Your task to perform on an android device: Open the phone app and click the voicemail tab. Image 0: 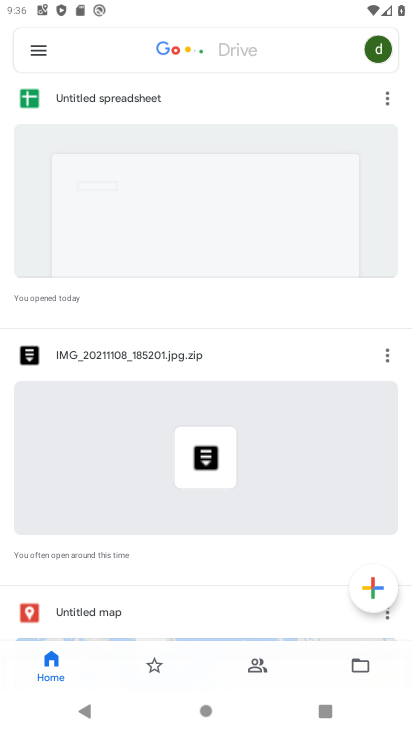
Step 0: press home button
Your task to perform on an android device: Open the phone app and click the voicemail tab. Image 1: 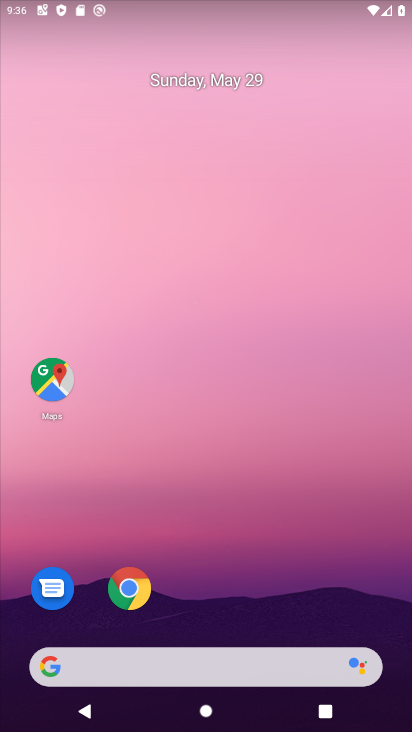
Step 1: drag from (14, 562) to (284, 153)
Your task to perform on an android device: Open the phone app and click the voicemail tab. Image 2: 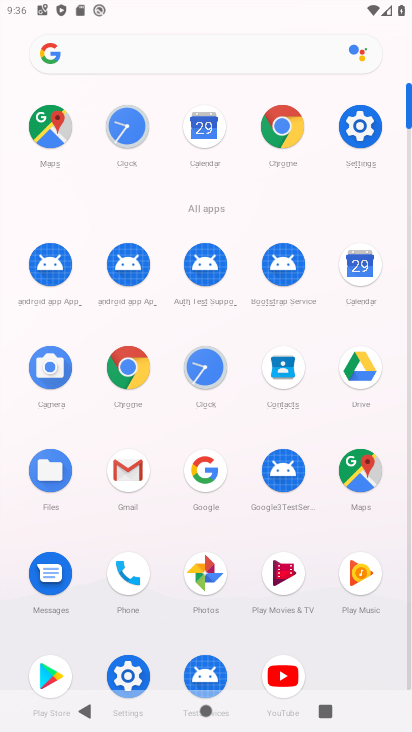
Step 2: click (121, 560)
Your task to perform on an android device: Open the phone app and click the voicemail tab. Image 3: 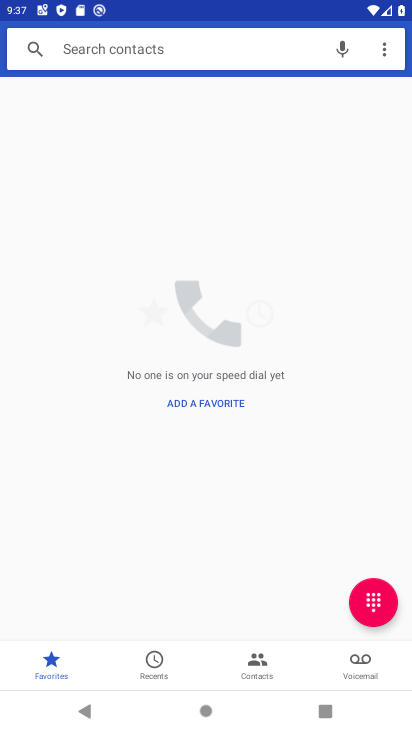
Step 3: click (346, 646)
Your task to perform on an android device: Open the phone app and click the voicemail tab. Image 4: 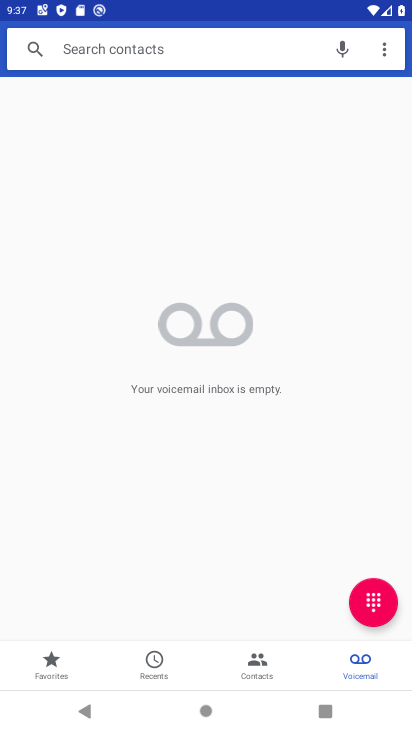
Step 4: task complete